Your task to perform on an android device: Go to sound settings Image 0: 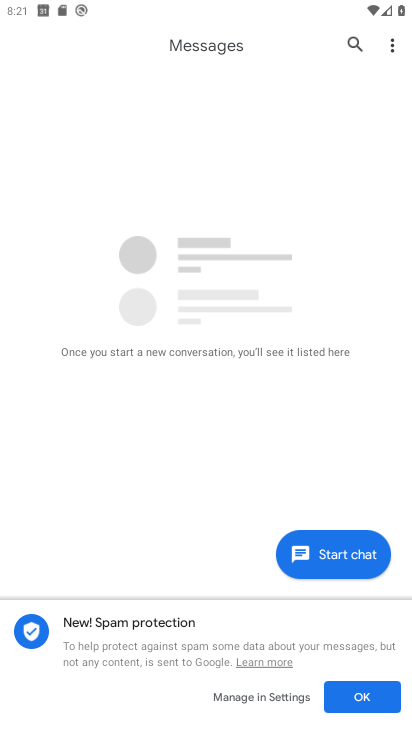
Step 0: press home button
Your task to perform on an android device: Go to sound settings Image 1: 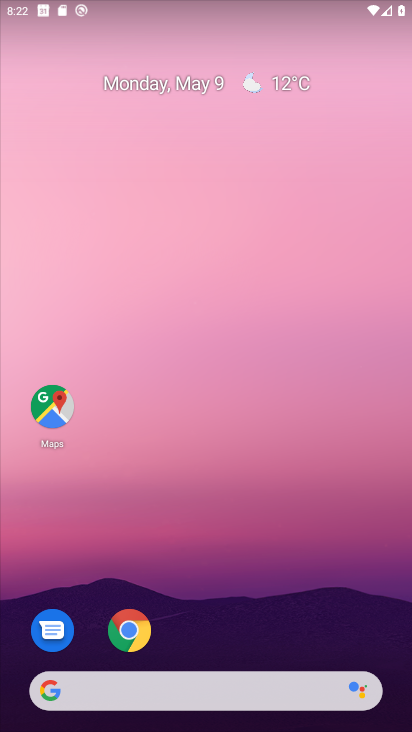
Step 1: drag from (237, 641) to (270, 145)
Your task to perform on an android device: Go to sound settings Image 2: 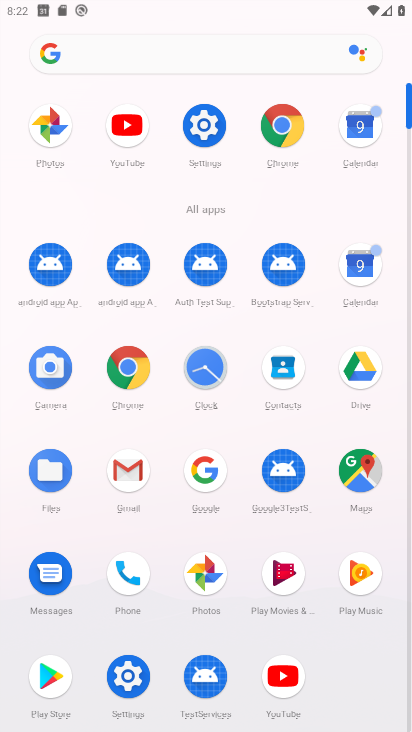
Step 2: click (141, 676)
Your task to perform on an android device: Go to sound settings Image 3: 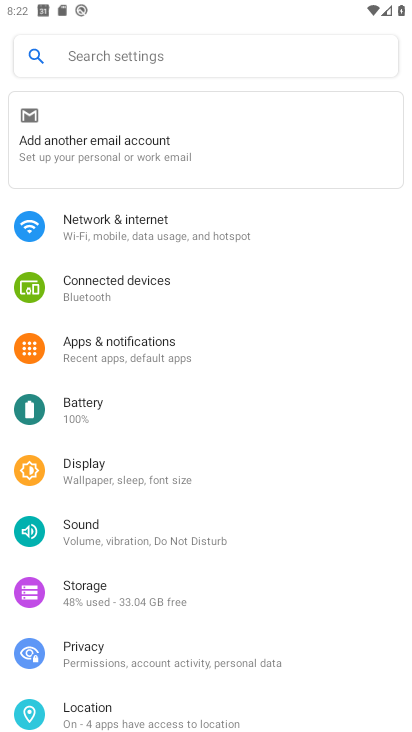
Step 3: click (130, 546)
Your task to perform on an android device: Go to sound settings Image 4: 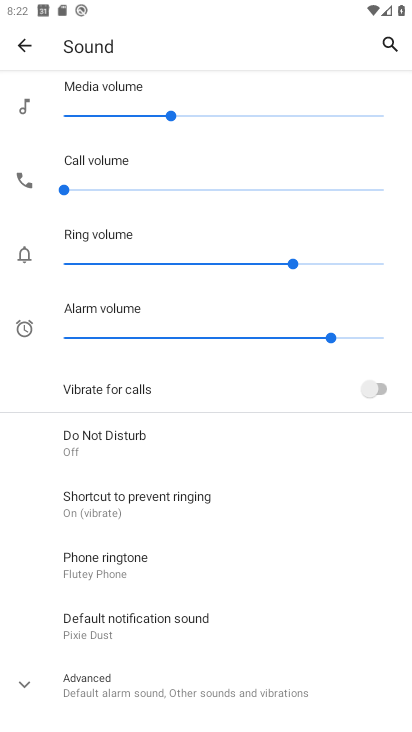
Step 4: task complete